Your task to perform on an android device: open app "Duolingo: language lessons" Image 0: 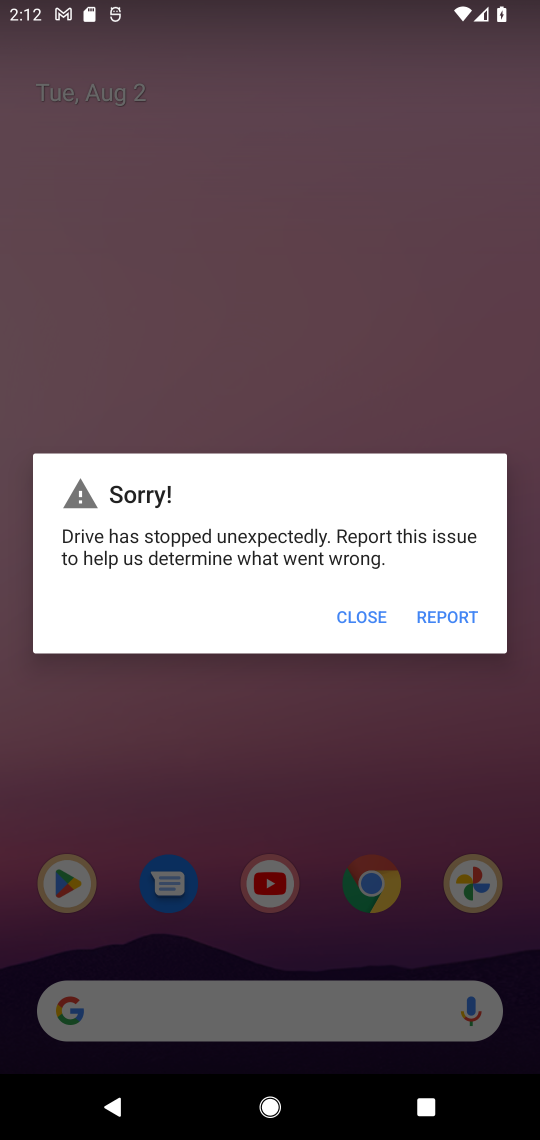
Step 0: press home button
Your task to perform on an android device: open app "Duolingo: language lessons" Image 1: 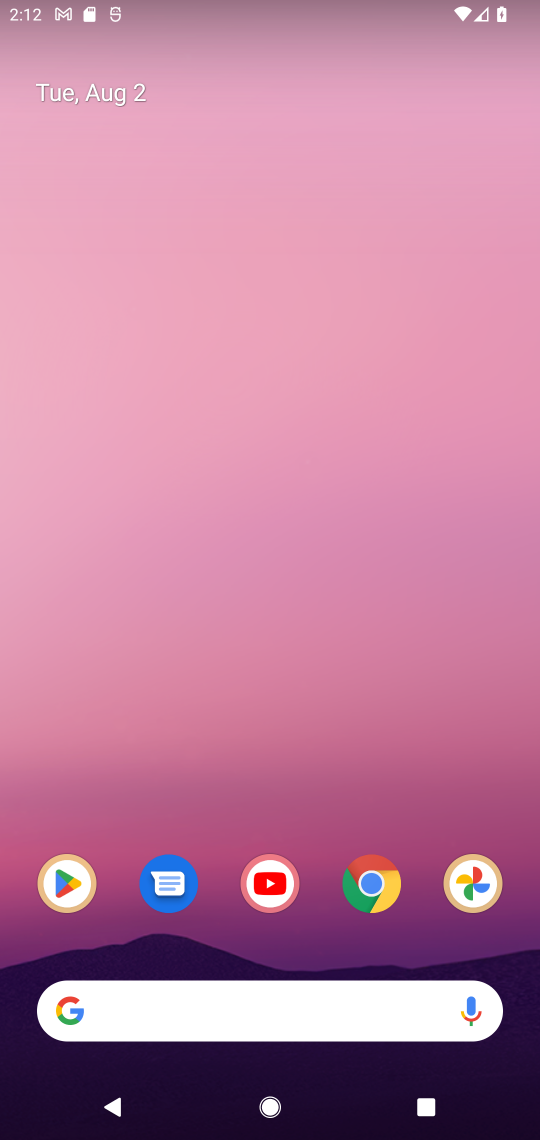
Step 1: click (61, 882)
Your task to perform on an android device: open app "Duolingo: language lessons" Image 2: 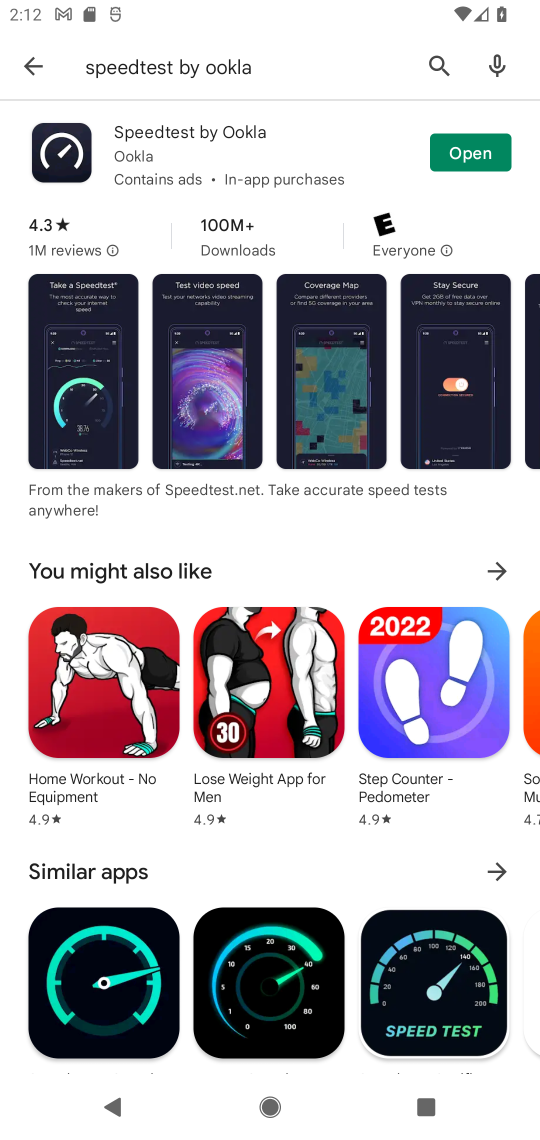
Step 2: click (441, 59)
Your task to perform on an android device: open app "Duolingo: language lessons" Image 3: 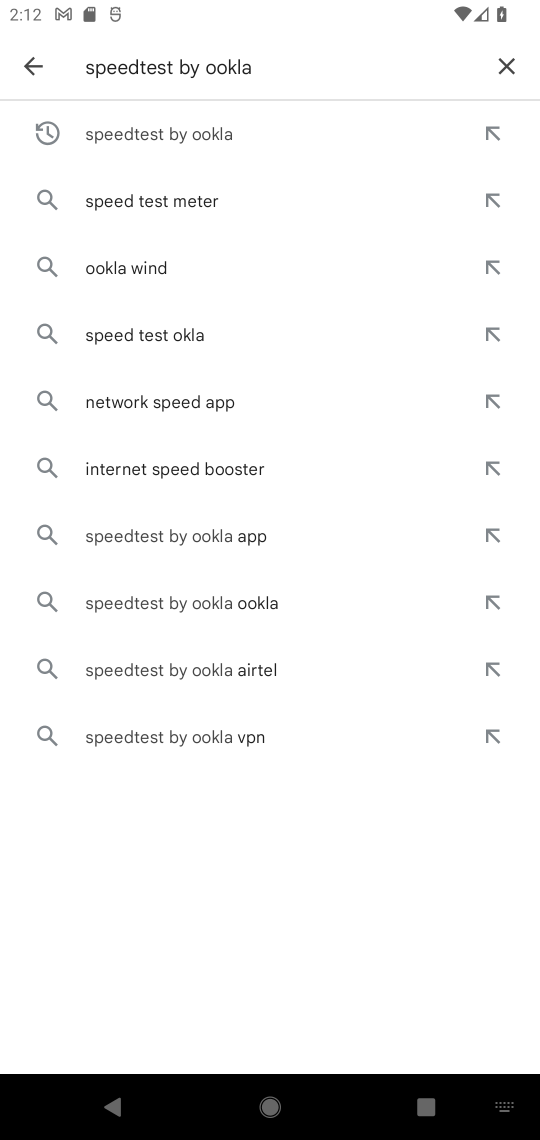
Step 3: click (502, 58)
Your task to perform on an android device: open app "Duolingo: language lessons" Image 4: 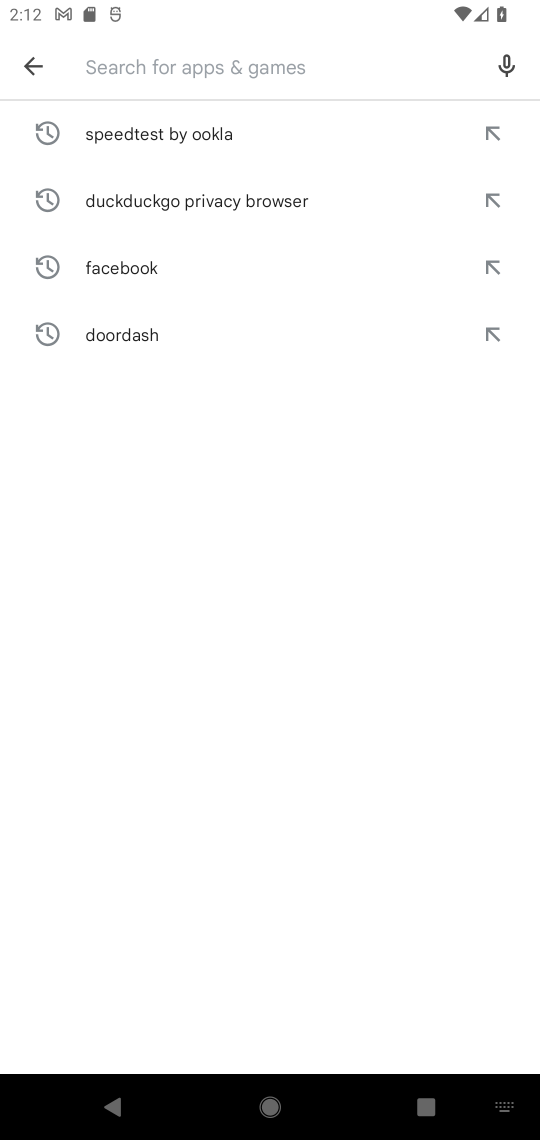
Step 4: type "Duolingo: language lessons"
Your task to perform on an android device: open app "Duolingo: language lessons" Image 5: 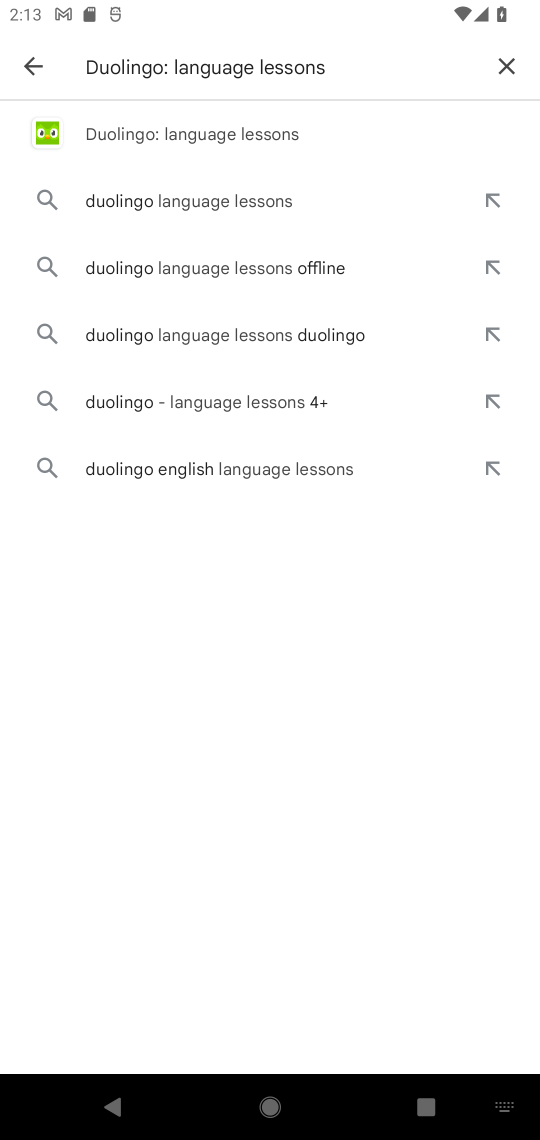
Step 5: click (177, 136)
Your task to perform on an android device: open app "Duolingo: language lessons" Image 6: 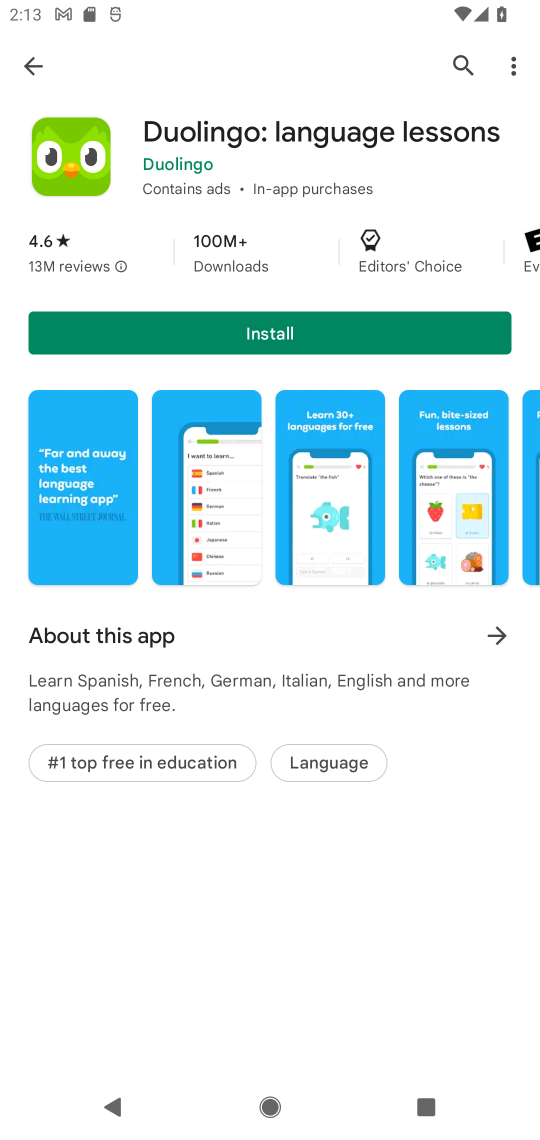
Step 6: task complete